Your task to perform on an android device: turn on javascript in the chrome app Image 0: 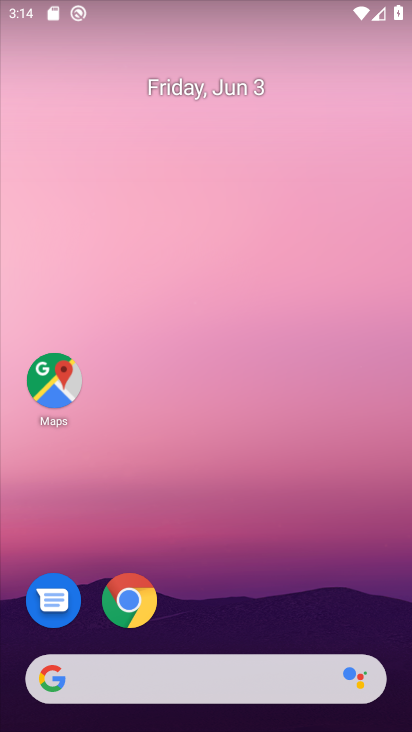
Step 0: drag from (278, 581) to (236, 121)
Your task to perform on an android device: turn on javascript in the chrome app Image 1: 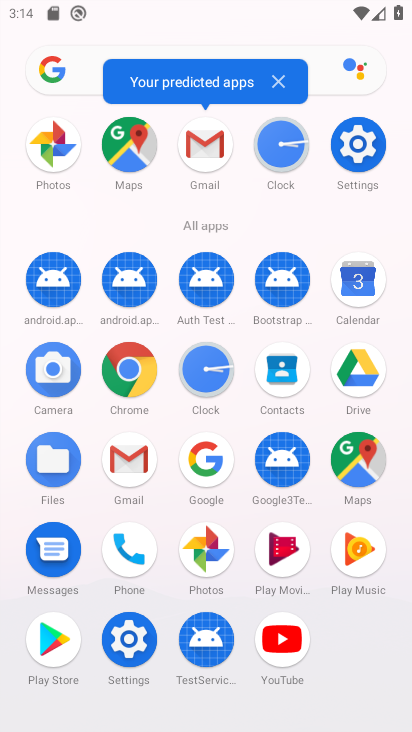
Step 1: click (127, 375)
Your task to perform on an android device: turn on javascript in the chrome app Image 2: 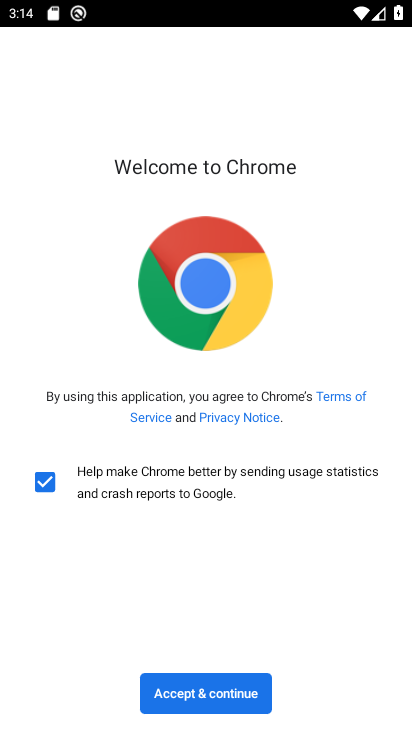
Step 2: click (215, 688)
Your task to perform on an android device: turn on javascript in the chrome app Image 3: 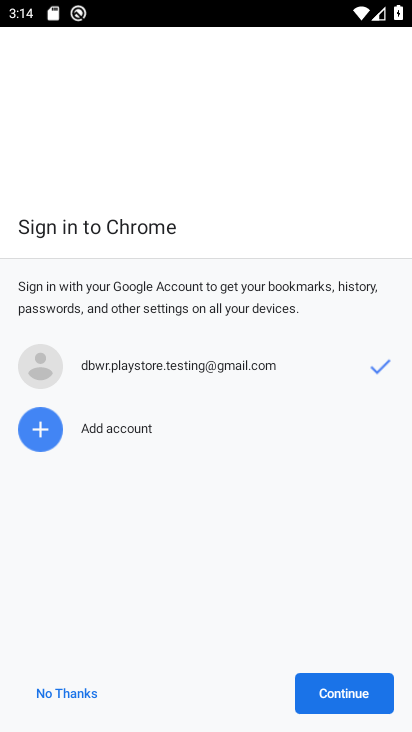
Step 3: click (330, 691)
Your task to perform on an android device: turn on javascript in the chrome app Image 4: 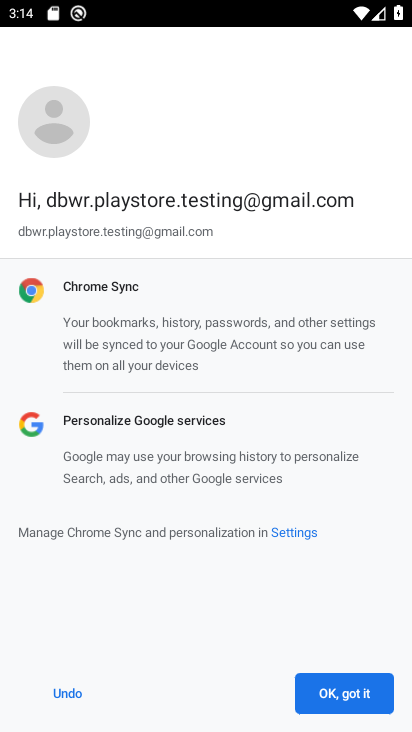
Step 4: click (320, 693)
Your task to perform on an android device: turn on javascript in the chrome app Image 5: 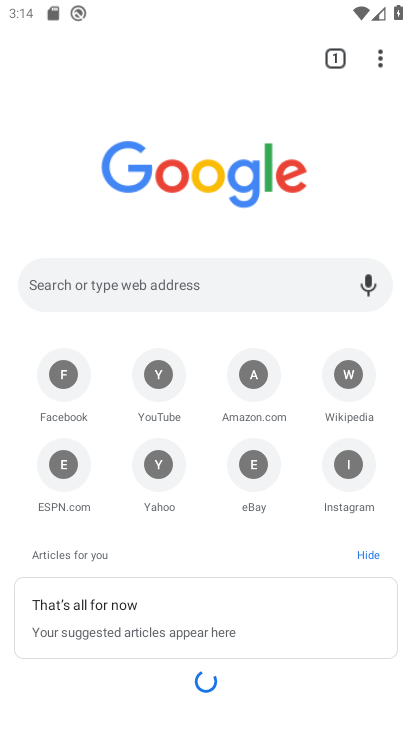
Step 5: drag from (386, 58) to (237, 486)
Your task to perform on an android device: turn on javascript in the chrome app Image 6: 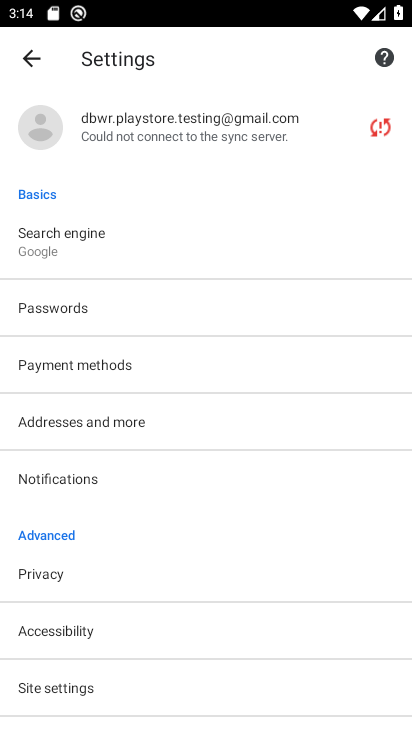
Step 6: click (83, 683)
Your task to perform on an android device: turn on javascript in the chrome app Image 7: 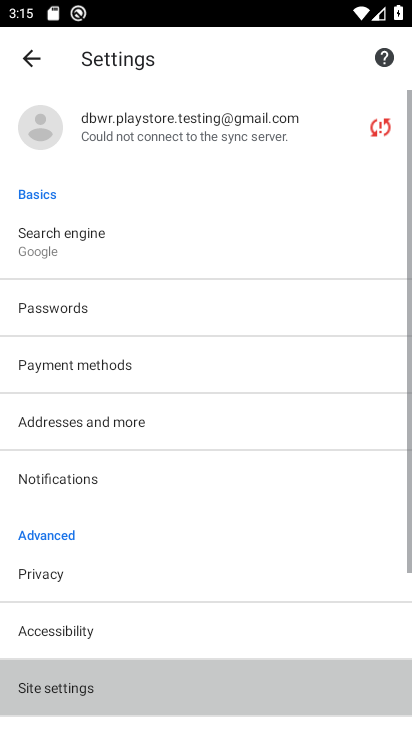
Step 7: click (67, 680)
Your task to perform on an android device: turn on javascript in the chrome app Image 8: 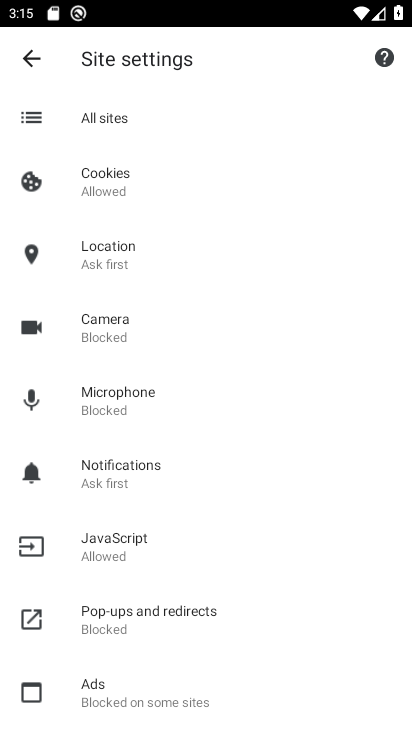
Step 8: click (110, 565)
Your task to perform on an android device: turn on javascript in the chrome app Image 9: 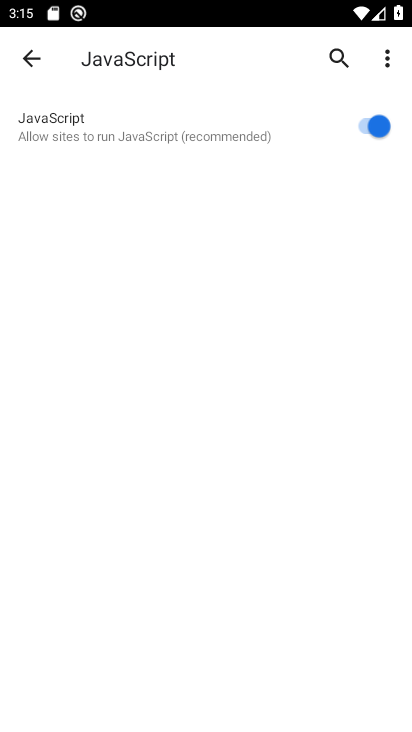
Step 9: task complete